Your task to perform on an android device: turn off translation in the chrome app Image 0: 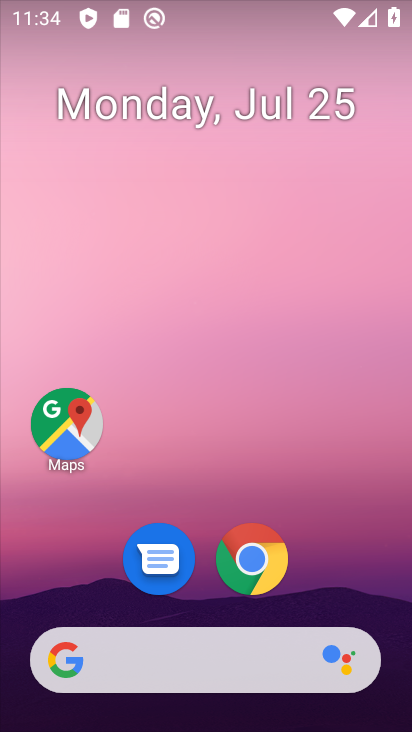
Step 0: click (261, 568)
Your task to perform on an android device: turn off translation in the chrome app Image 1: 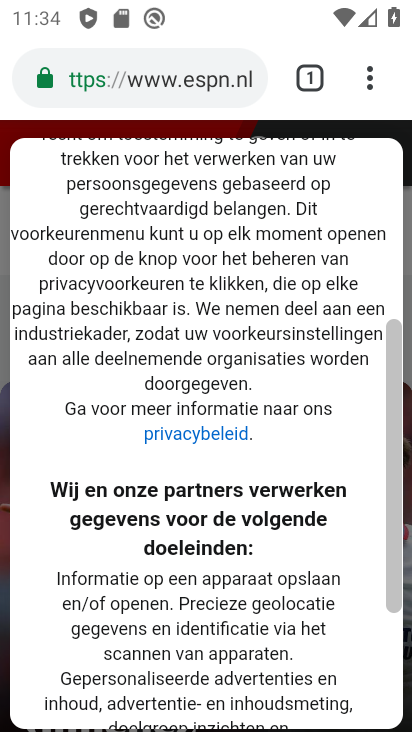
Step 1: click (361, 78)
Your task to perform on an android device: turn off translation in the chrome app Image 2: 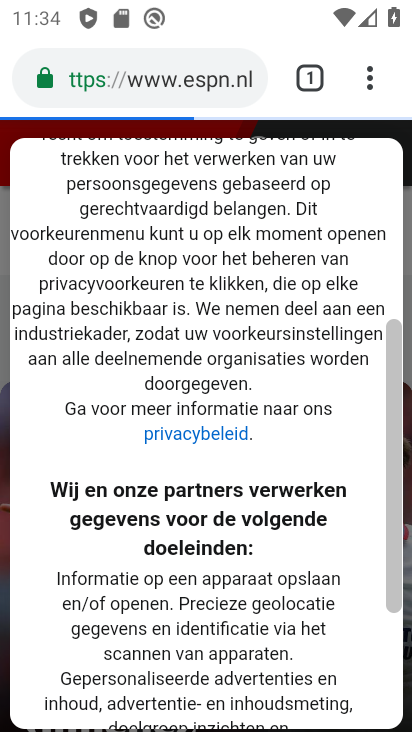
Step 2: drag from (373, 85) to (85, 626)
Your task to perform on an android device: turn off translation in the chrome app Image 3: 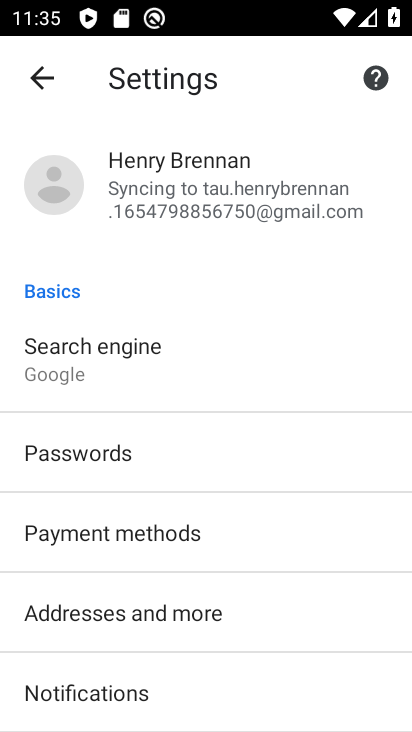
Step 3: drag from (153, 600) to (211, 180)
Your task to perform on an android device: turn off translation in the chrome app Image 4: 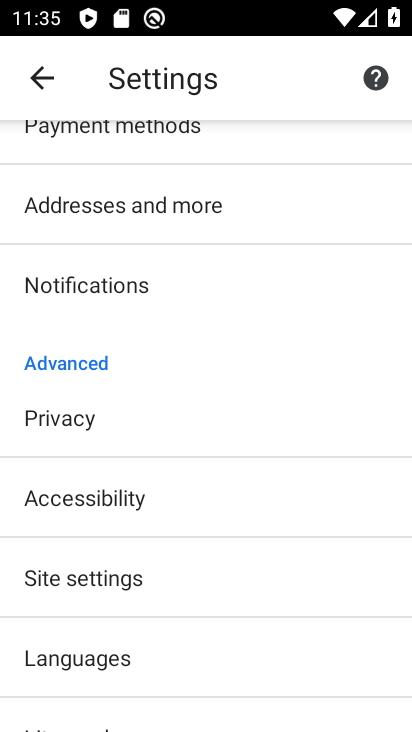
Step 4: drag from (78, 595) to (173, 307)
Your task to perform on an android device: turn off translation in the chrome app Image 5: 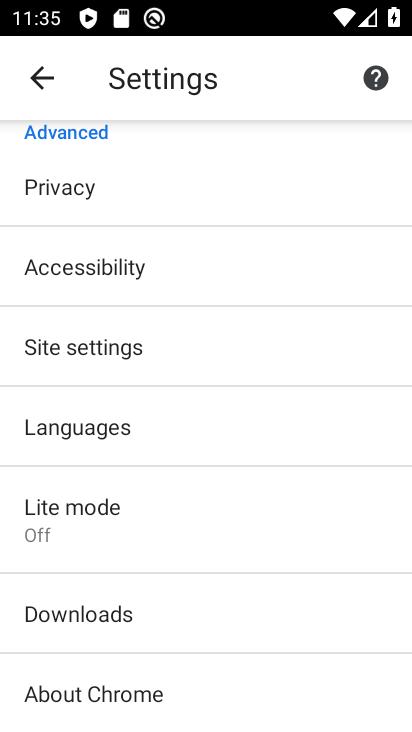
Step 5: click (125, 423)
Your task to perform on an android device: turn off translation in the chrome app Image 6: 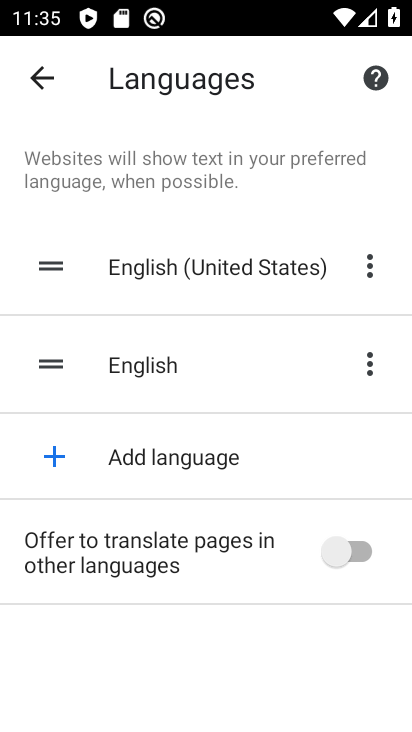
Step 6: task complete